Your task to perform on an android device: Open Google Maps and go to "Timeline" Image 0: 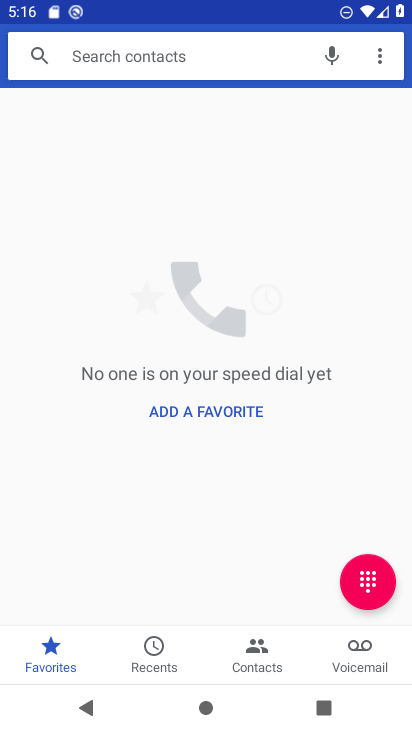
Step 0: press back button
Your task to perform on an android device: Open Google Maps and go to "Timeline" Image 1: 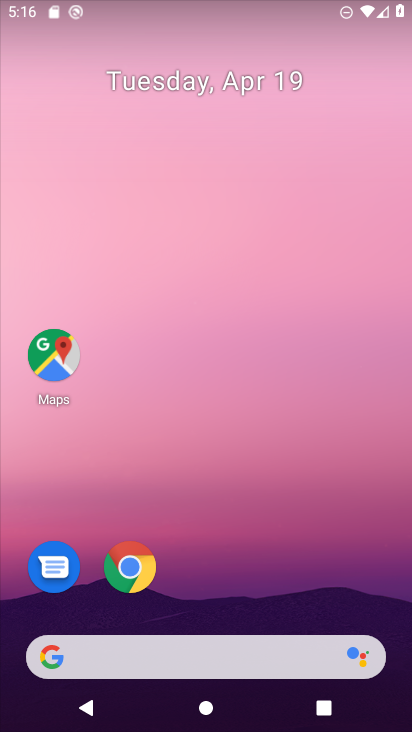
Step 1: drag from (354, 543) to (236, 17)
Your task to perform on an android device: Open Google Maps and go to "Timeline" Image 2: 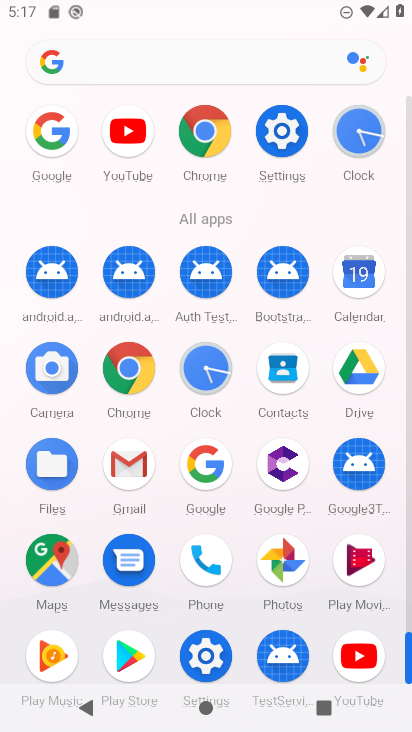
Step 2: drag from (20, 535) to (10, 243)
Your task to perform on an android device: Open Google Maps and go to "Timeline" Image 3: 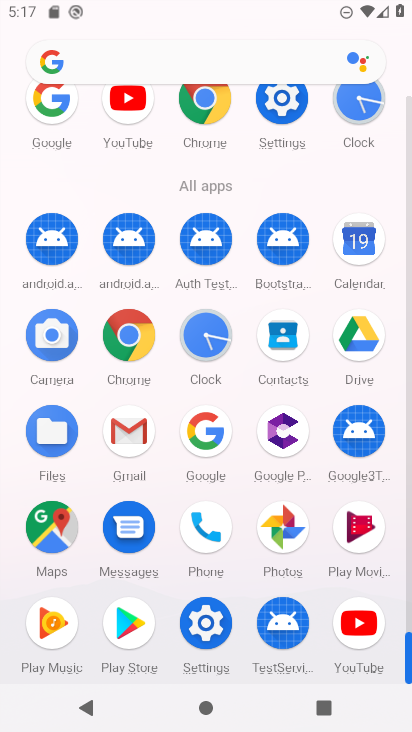
Step 3: click (55, 523)
Your task to perform on an android device: Open Google Maps and go to "Timeline" Image 4: 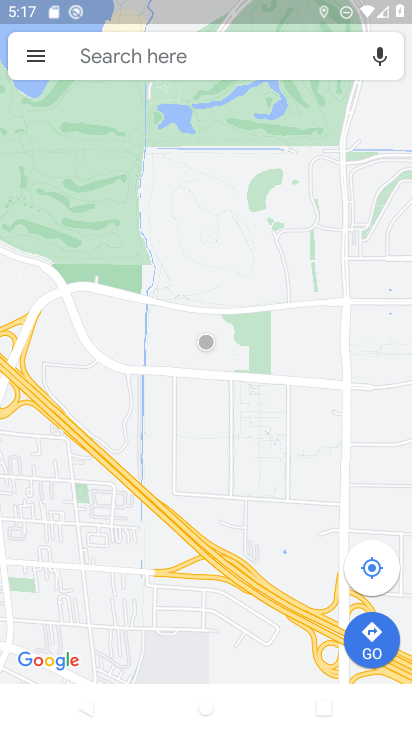
Step 4: click (40, 61)
Your task to perform on an android device: Open Google Maps and go to "Timeline" Image 5: 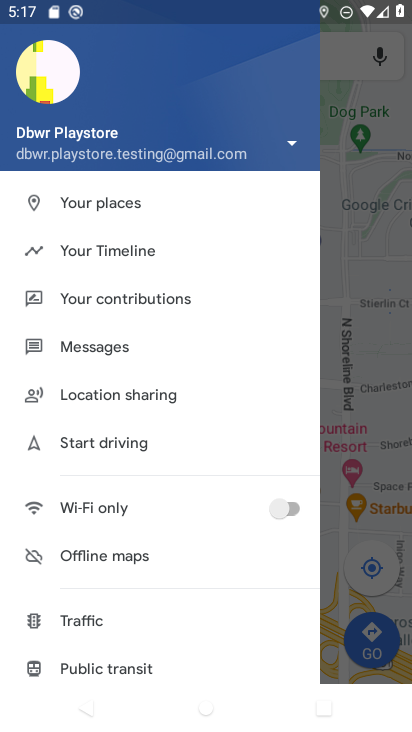
Step 5: click (140, 242)
Your task to perform on an android device: Open Google Maps and go to "Timeline" Image 6: 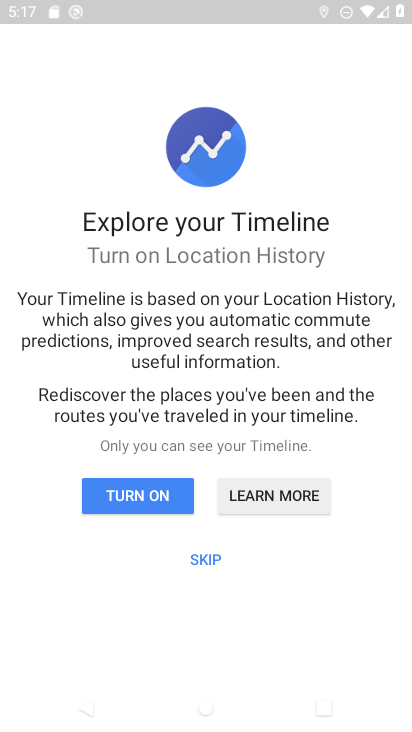
Step 6: click (161, 504)
Your task to perform on an android device: Open Google Maps and go to "Timeline" Image 7: 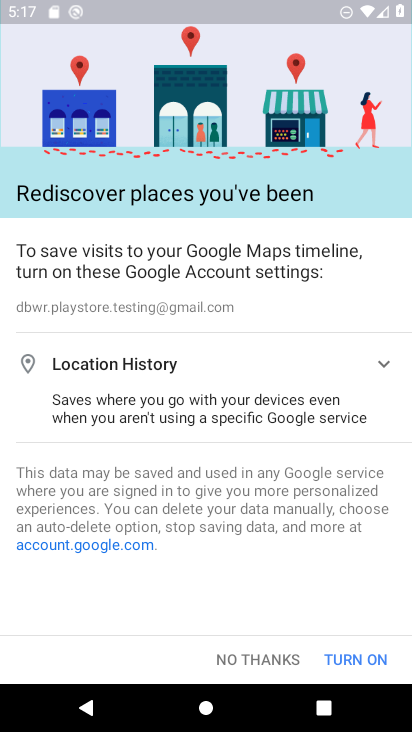
Step 7: click (366, 660)
Your task to perform on an android device: Open Google Maps and go to "Timeline" Image 8: 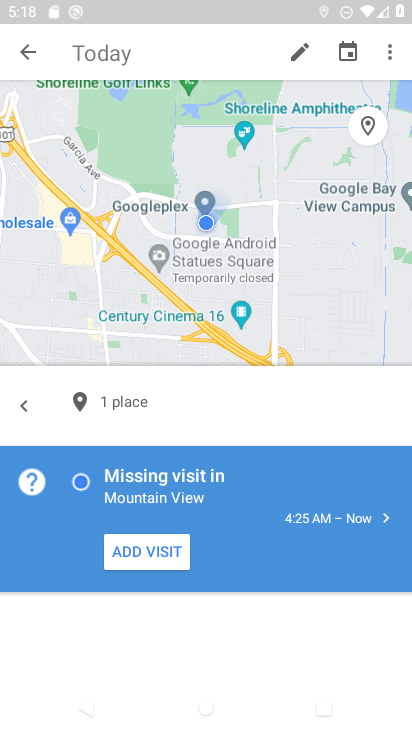
Step 8: task complete